Your task to perform on an android device: Open Youtube and go to the subscriptions tab Image 0: 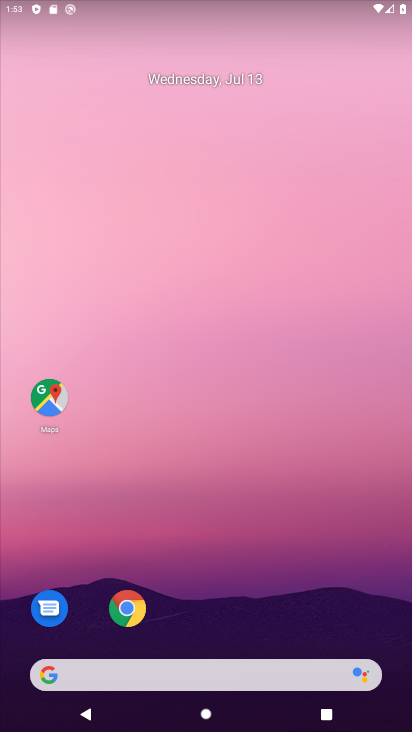
Step 0: drag from (216, 569) to (285, 216)
Your task to perform on an android device: Open Youtube and go to the subscriptions tab Image 1: 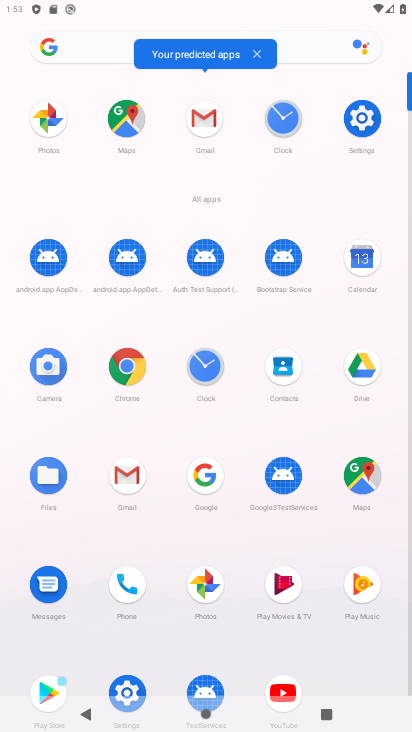
Step 1: click (283, 683)
Your task to perform on an android device: Open Youtube and go to the subscriptions tab Image 2: 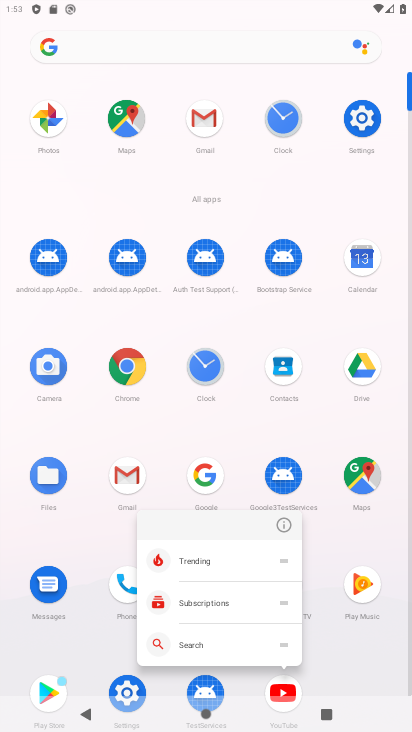
Step 2: click (272, 694)
Your task to perform on an android device: Open Youtube and go to the subscriptions tab Image 3: 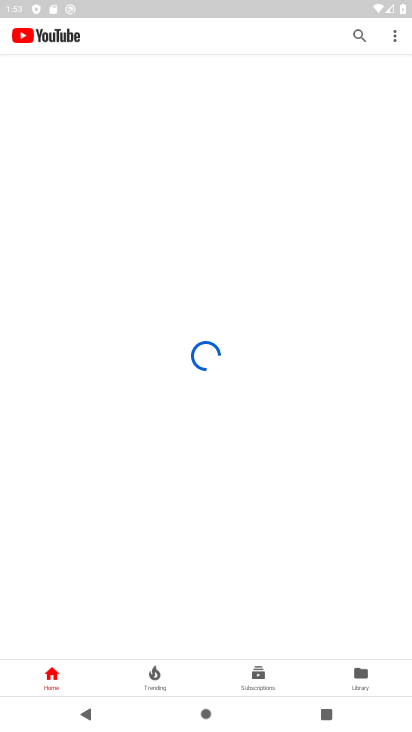
Step 3: click (261, 678)
Your task to perform on an android device: Open Youtube and go to the subscriptions tab Image 4: 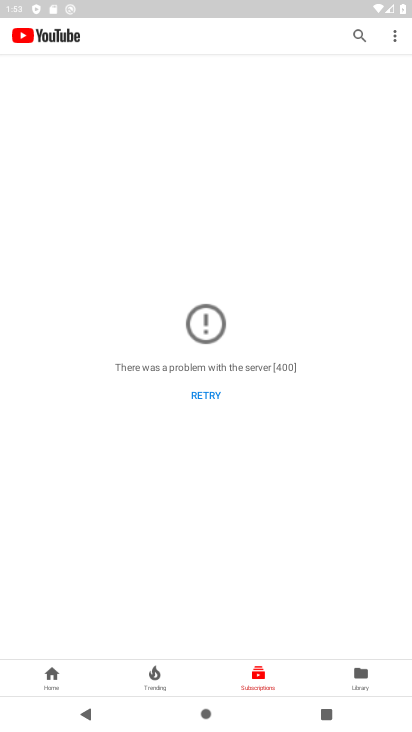
Step 4: task complete